Your task to perform on an android device: Open Google Chrome and open the bookmarks view Image 0: 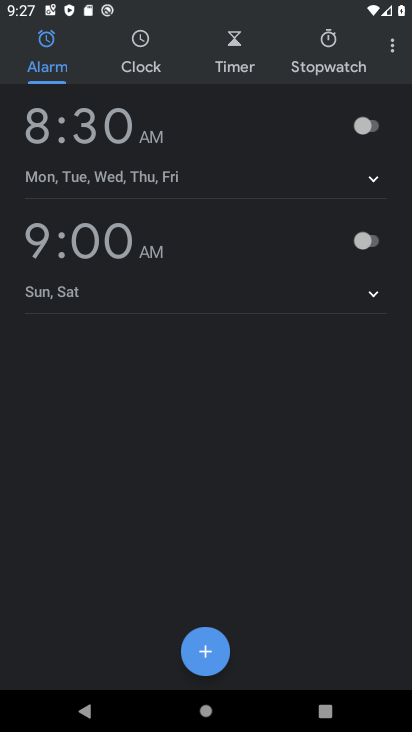
Step 0: press home button
Your task to perform on an android device: Open Google Chrome and open the bookmarks view Image 1: 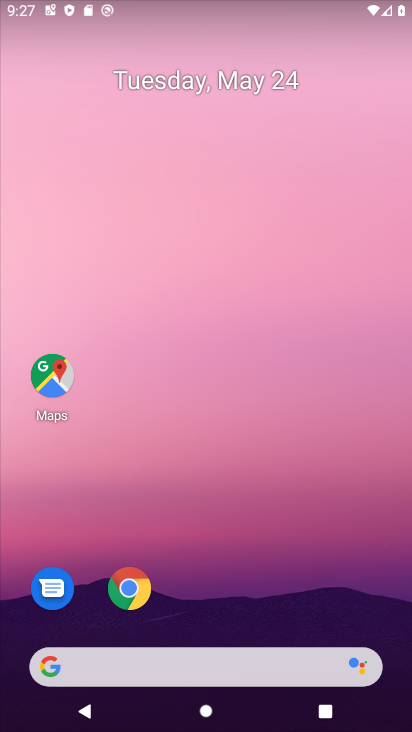
Step 1: click (121, 581)
Your task to perform on an android device: Open Google Chrome and open the bookmarks view Image 2: 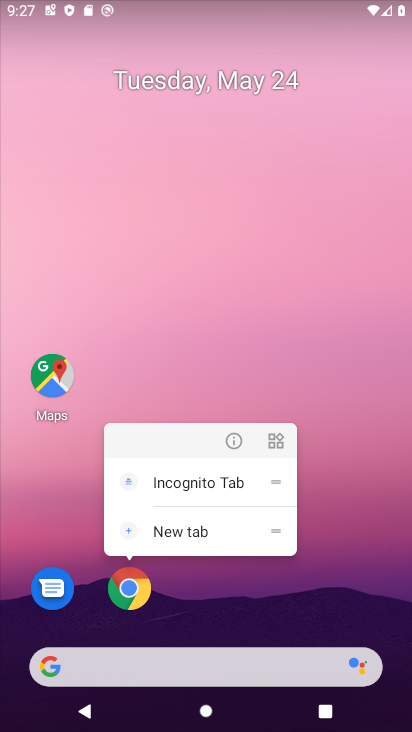
Step 2: click (121, 589)
Your task to perform on an android device: Open Google Chrome and open the bookmarks view Image 3: 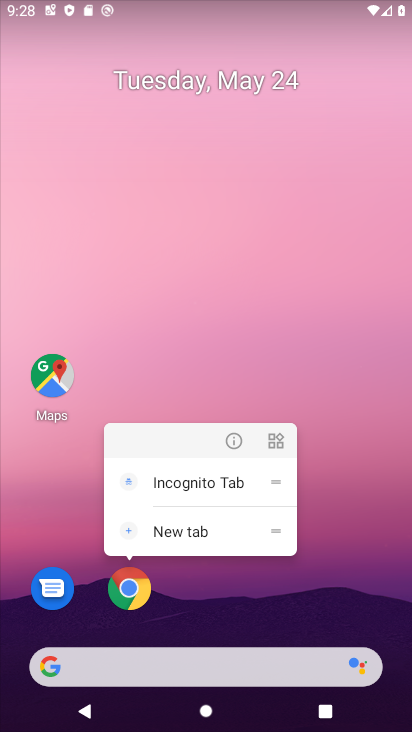
Step 3: click (130, 589)
Your task to perform on an android device: Open Google Chrome and open the bookmarks view Image 4: 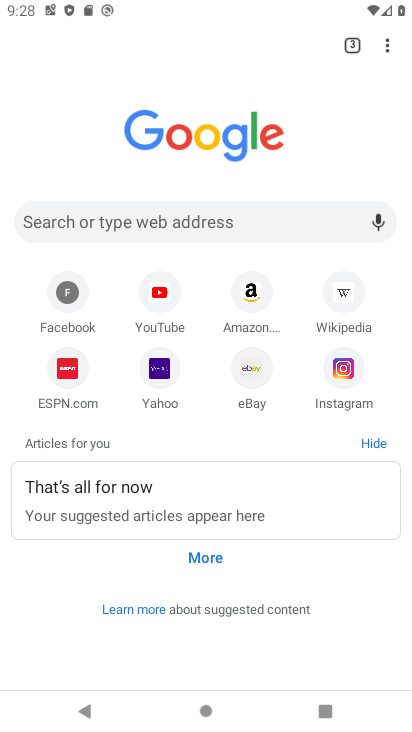
Step 4: task complete